Your task to perform on an android device: Do I have any events this weekend? Image 0: 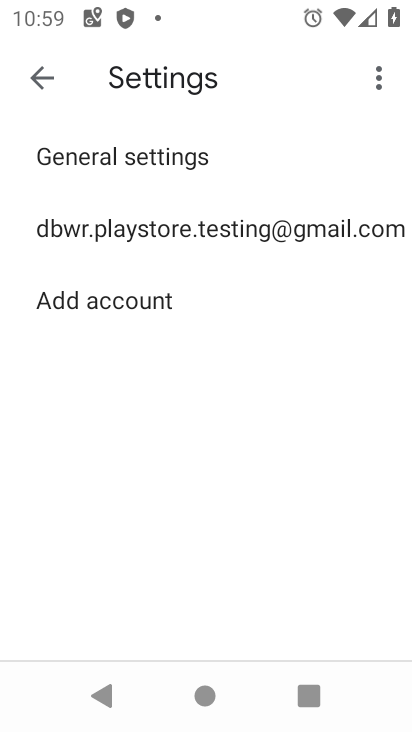
Step 0: press home button
Your task to perform on an android device: Do I have any events this weekend? Image 1: 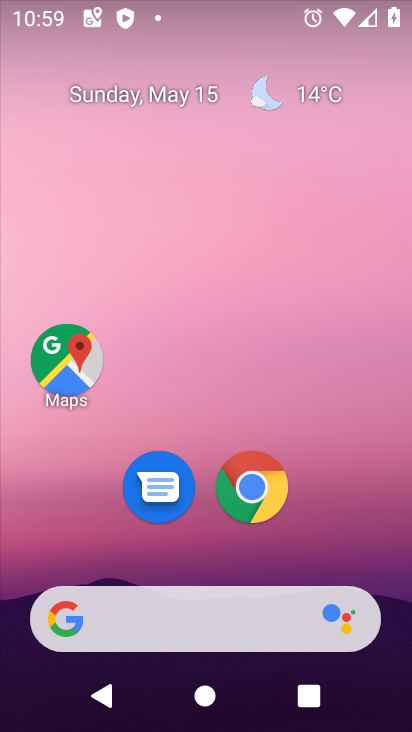
Step 1: drag from (385, 583) to (310, 47)
Your task to perform on an android device: Do I have any events this weekend? Image 2: 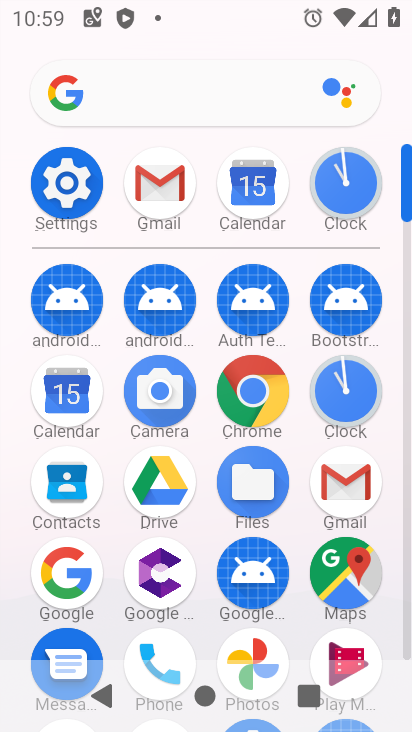
Step 2: click (67, 395)
Your task to perform on an android device: Do I have any events this weekend? Image 3: 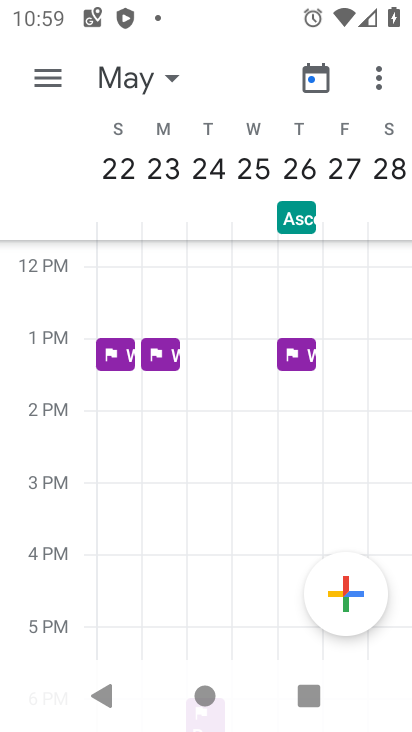
Step 3: click (48, 68)
Your task to perform on an android device: Do I have any events this weekend? Image 4: 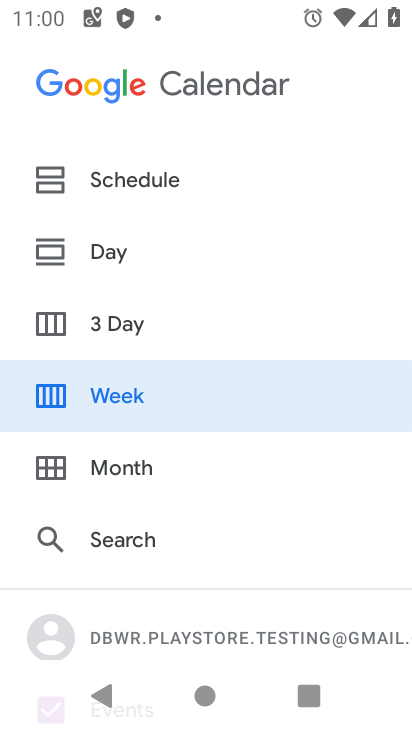
Step 4: click (164, 408)
Your task to perform on an android device: Do I have any events this weekend? Image 5: 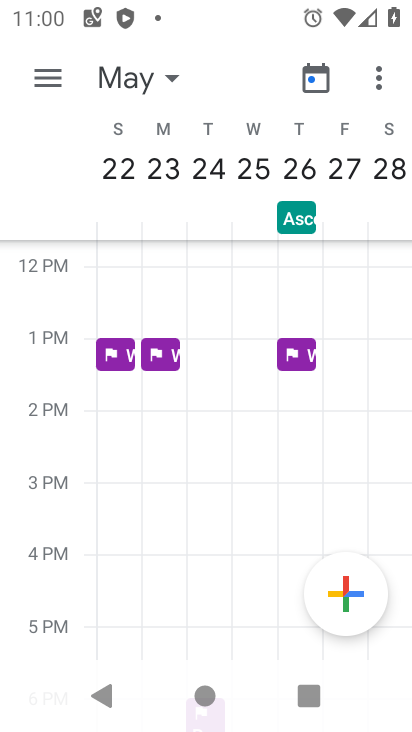
Step 5: task complete